Your task to perform on an android device: Is it going to rain tomorrow? Image 0: 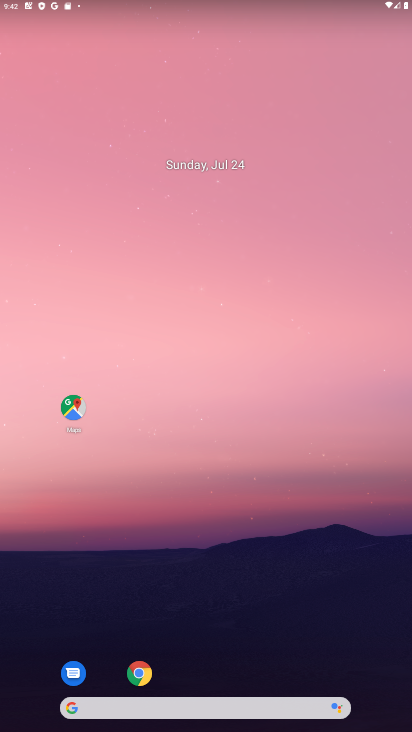
Step 0: click (124, 716)
Your task to perform on an android device: Is it going to rain tomorrow? Image 1: 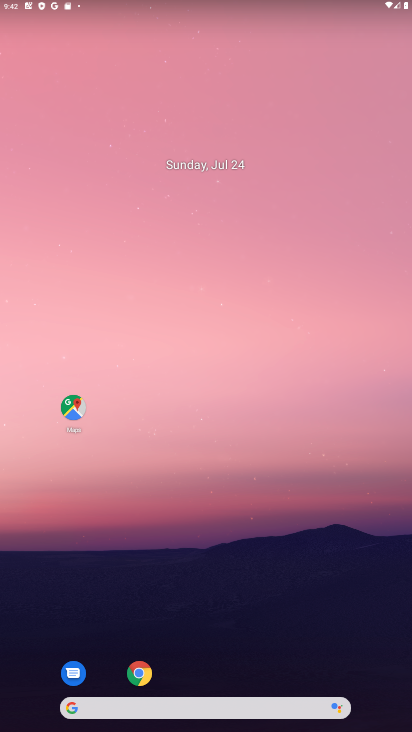
Step 1: click (124, 708)
Your task to perform on an android device: Is it going to rain tomorrow? Image 2: 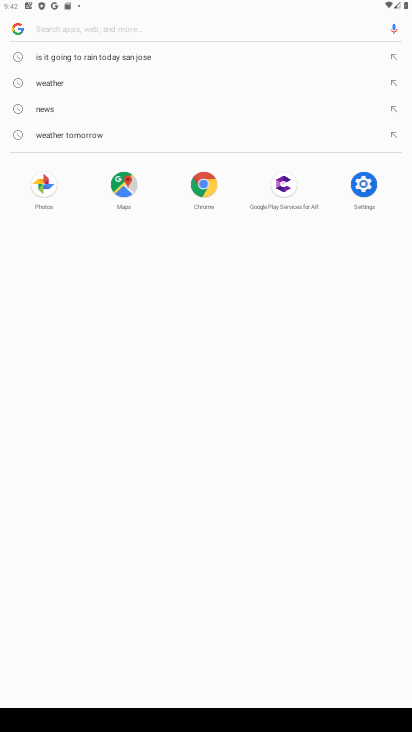
Step 2: type "Is it going to rain tomorrow?"
Your task to perform on an android device: Is it going to rain tomorrow? Image 3: 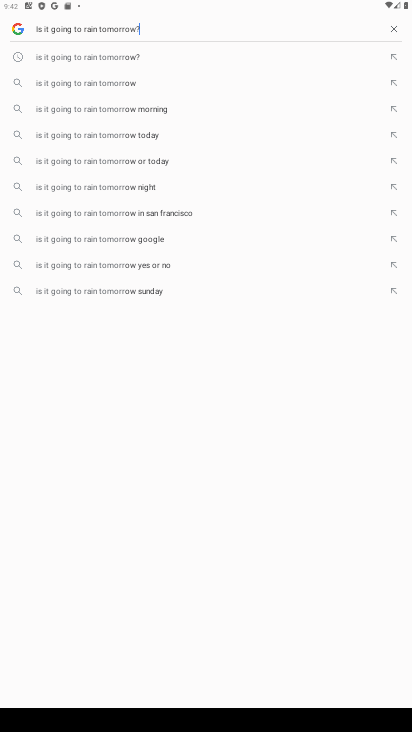
Step 3: type ""
Your task to perform on an android device: Is it going to rain tomorrow? Image 4: 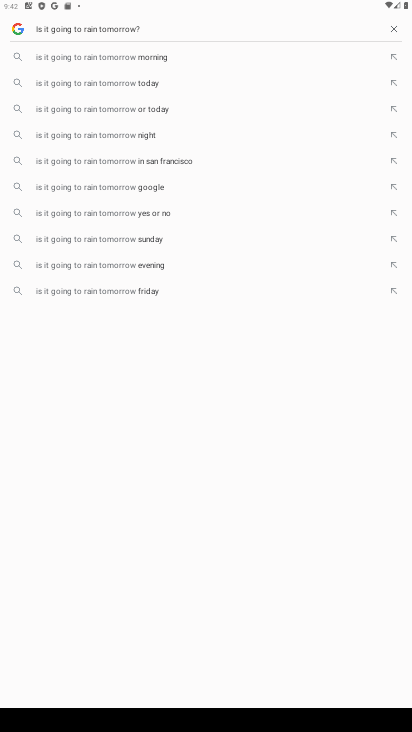
Step 4: type ""
Your task to perform on an android device: Is it going to rain tomorrow? Image 5: 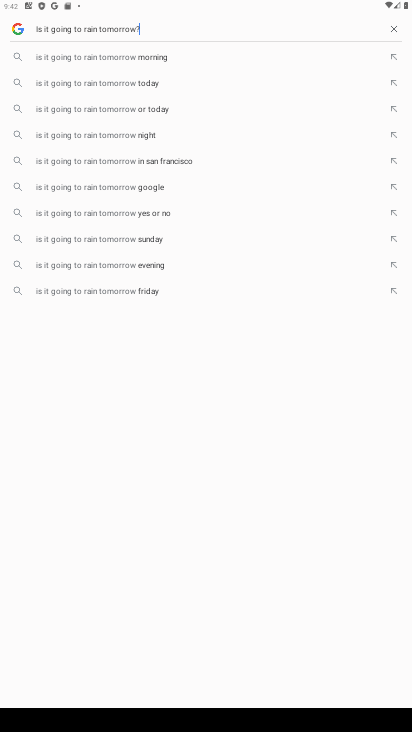
Step 5: type ""
Your task to perform on an android device: Is it going to rain tomorrow? Image 6: 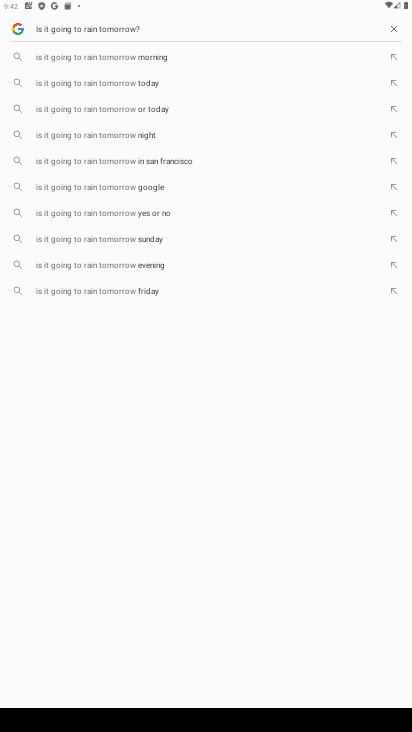
Step 6: task complete